Your task to perform on an android device: Go to Google maps Image 0: 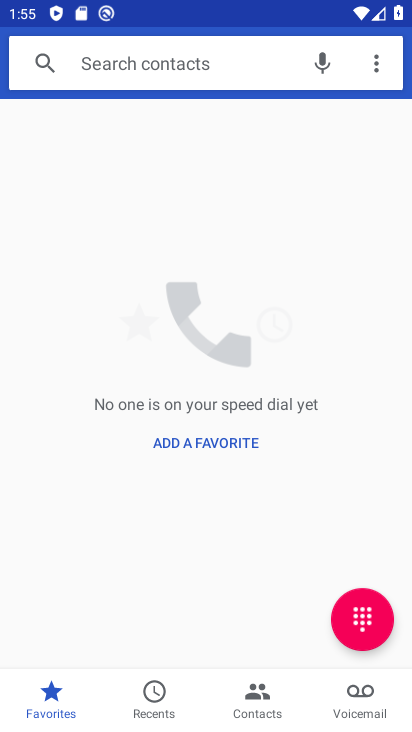
Step 0: press back button
Your task to perform on an android device: Go to Google maps Image 1: 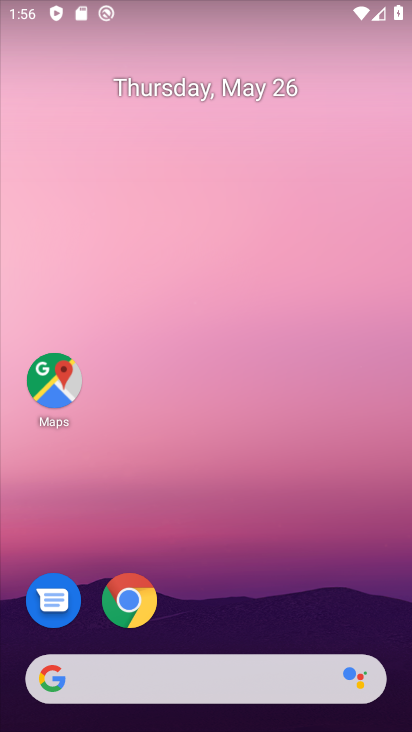
Step 1: click (49, 378)
Your task to perform on an android device: Go to Google maps Image 2: 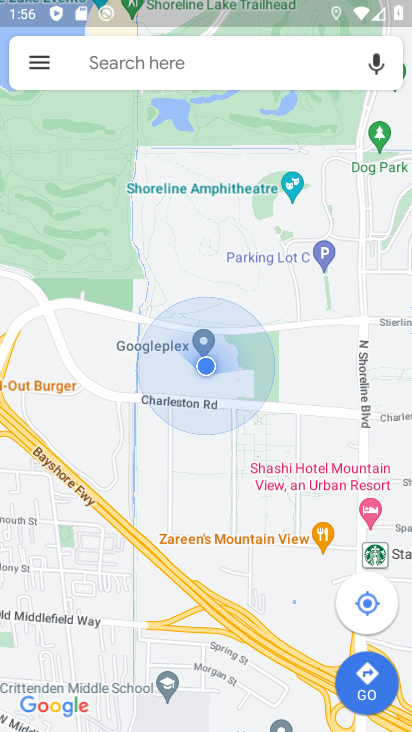
Step 2: task complete